Your task to perform on an android device: Go to Amazon Image 0: 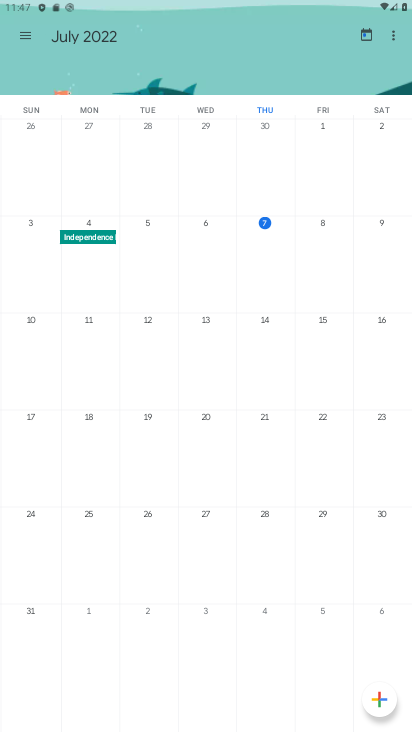
Step 0: press home button
Your task to perform on an android device: Go to Amazon Image 1: 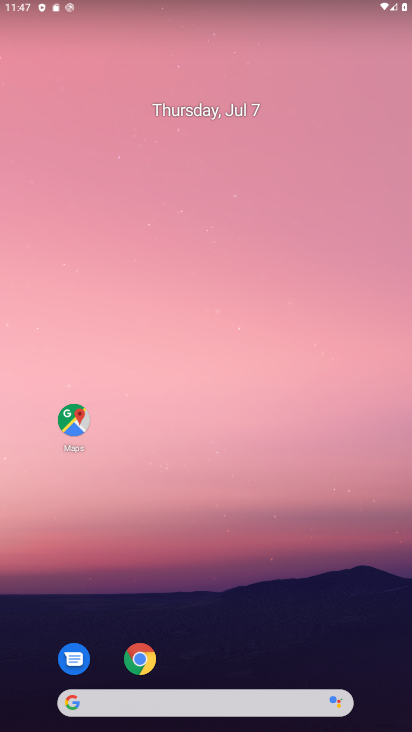
Step 1: click (140, 662)
Your task to perform on an android device: Go to Amazon Image 2: 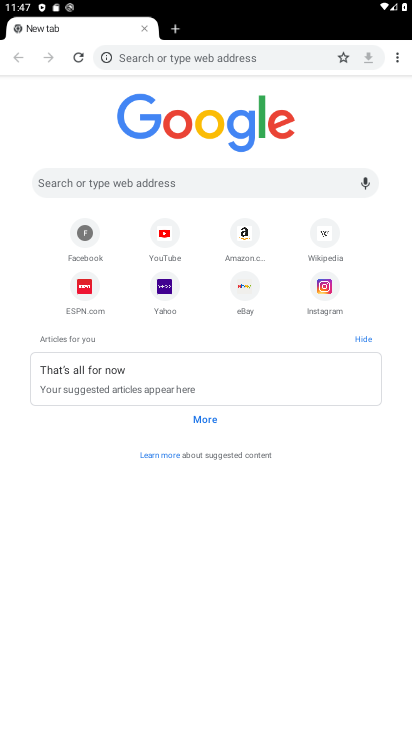
Step 2: click (247, 234)
Your task to perform on an android device: Go to Amazon Image 3: 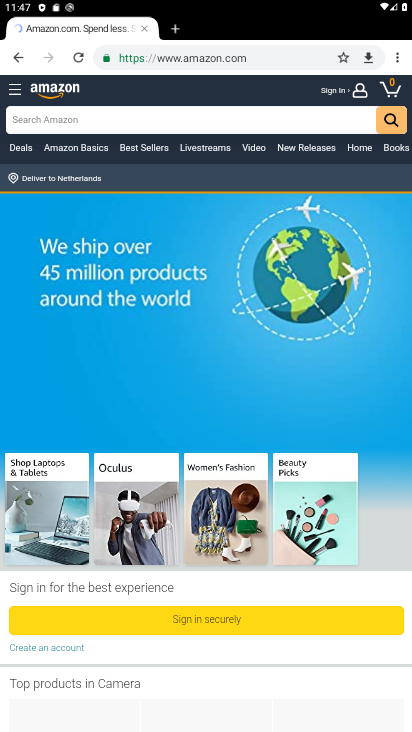
Step 3: task complete